Your task to perform on an android device: Open Chrome and go to settings Image 0: 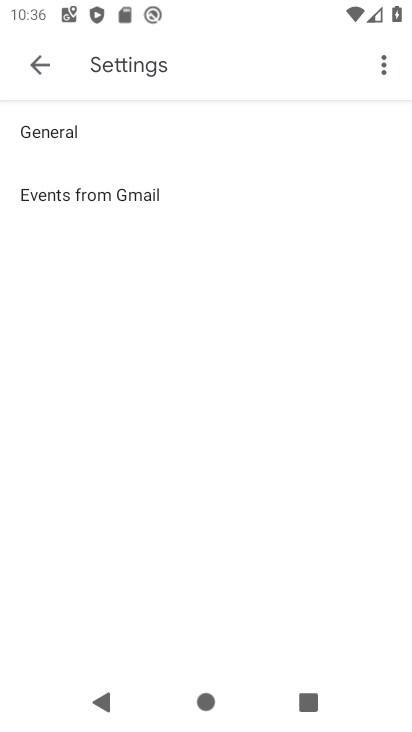
Step 0: press home button
Your task to perform on an android device: Open Chrome and go to settings Image 1: 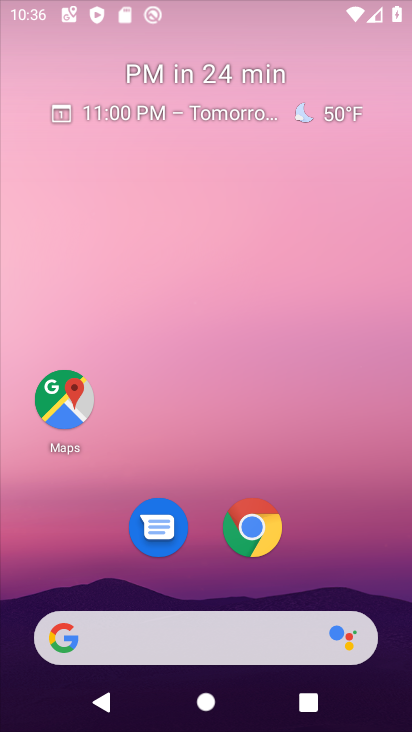
Step 1: drag from (366, 562) to (305, 30)
Your task to perform on an android device: Open Chrome and go to settings Image 2: 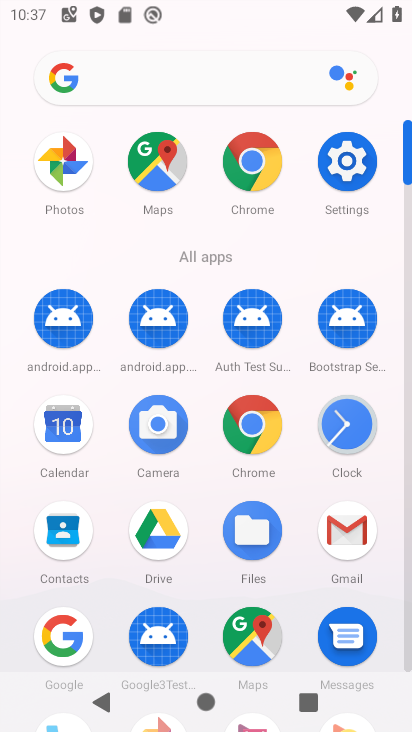
Step 2: click (271, 440)
Your task to perform on an android device: Open Chrome and go to settings Image 3: 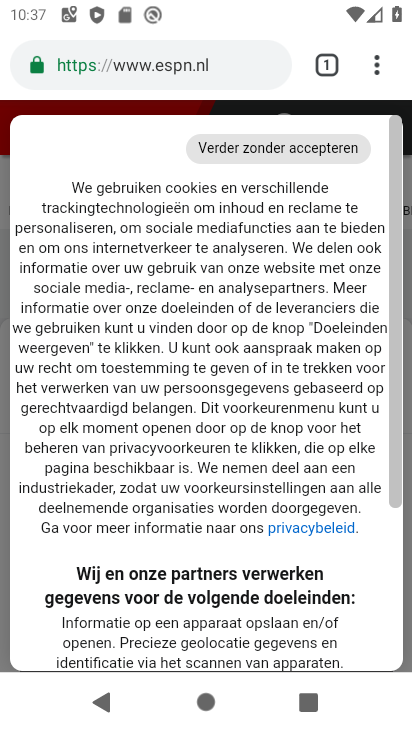
Step 3: task complete